Your task to perform on an android device: turn on improve location accuracy Image 0: 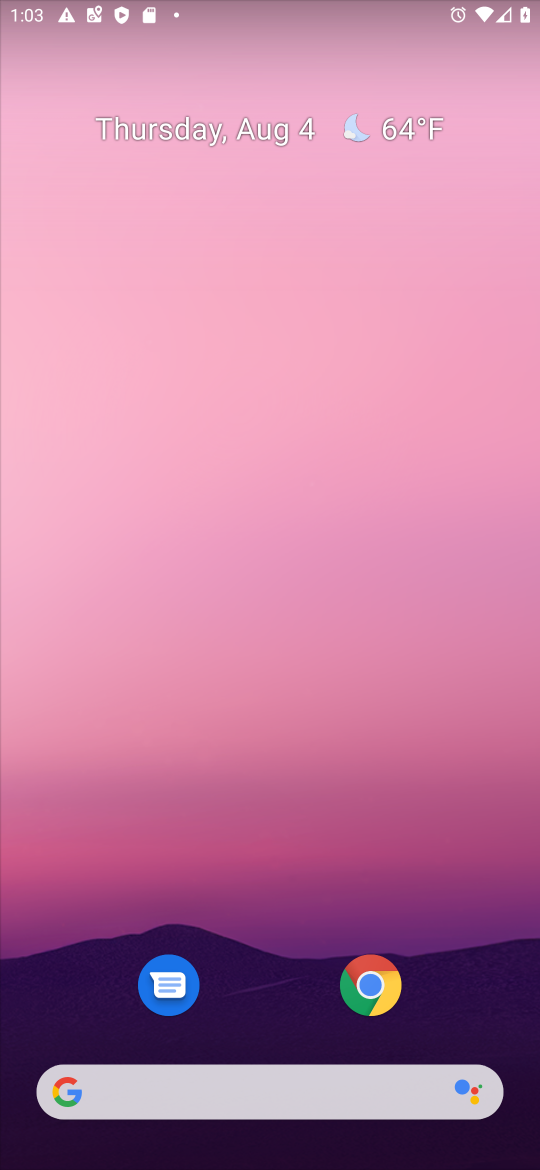
Step 0: drag from (276, 905) to (225, 66)
Your task to perform on an android device: turn on improve location accuracy Image 1: 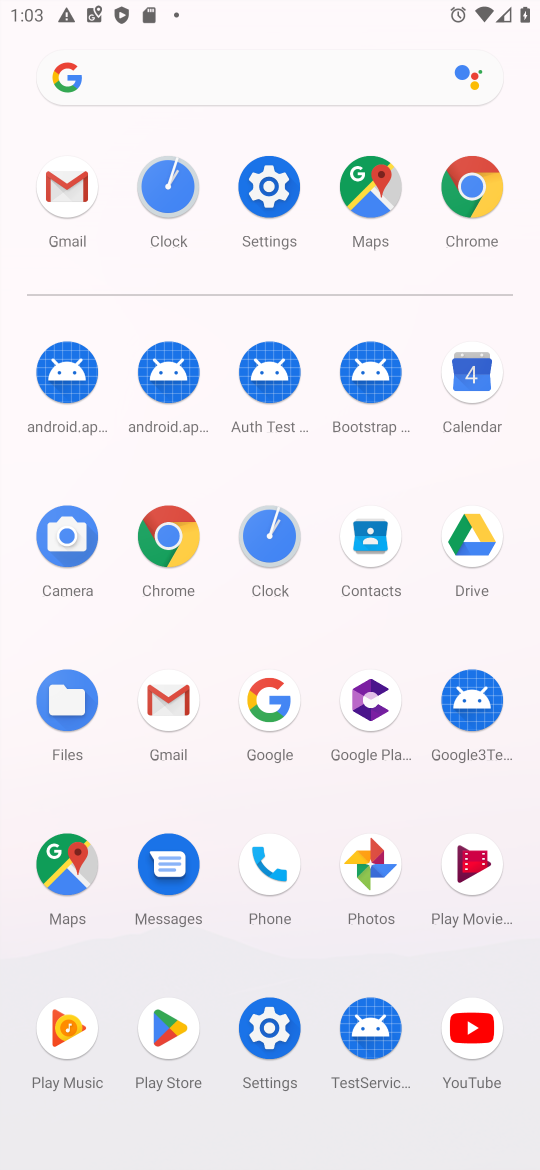
Step 1: click (274, 173)
Your task to perform on an android device: turn on improve location accuracy Image 2: 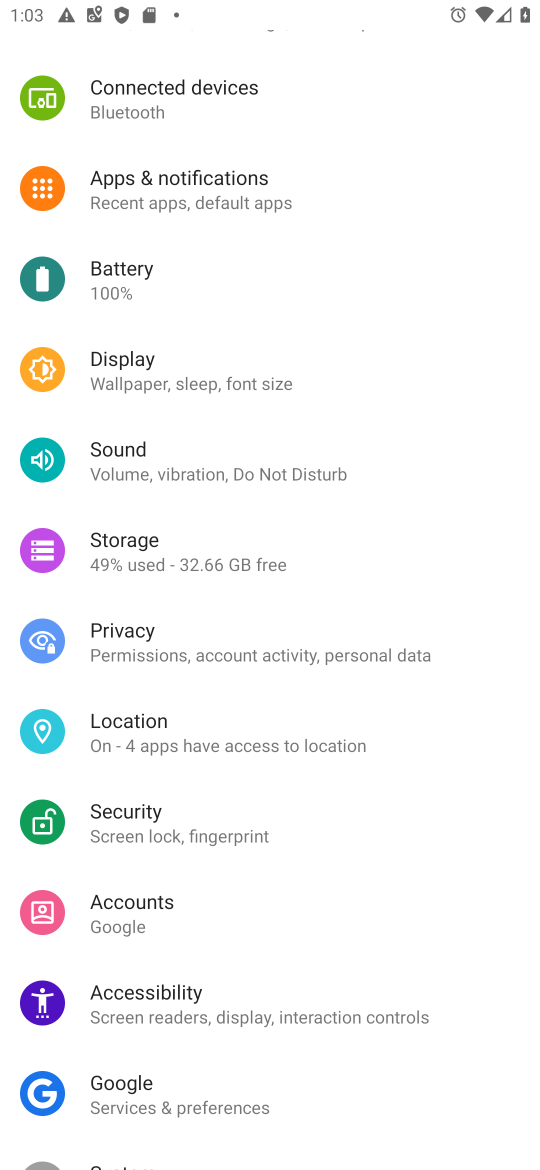
Step 2: click (129, 723)
Your task to perform on an android device: turn on improve location accuracy Image 3: 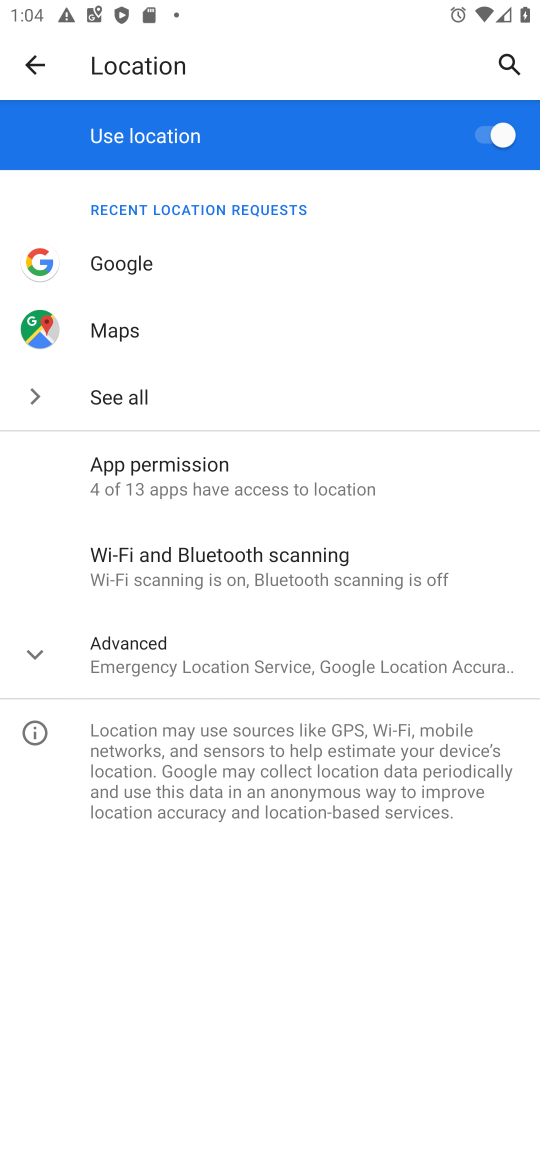
Step 3: click (44, 650)
Your task to perform on an android device: turn on improve location accuracy Image 4: 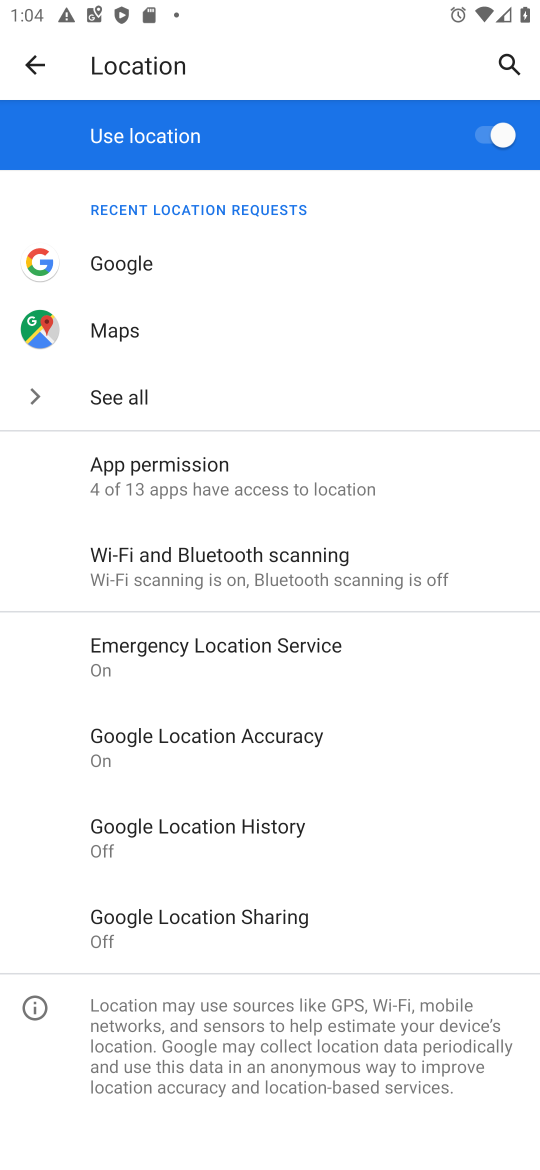
Step 4: click (239, 727)
Your task to perform on an android device: turn on improve location accuracy Image 5: 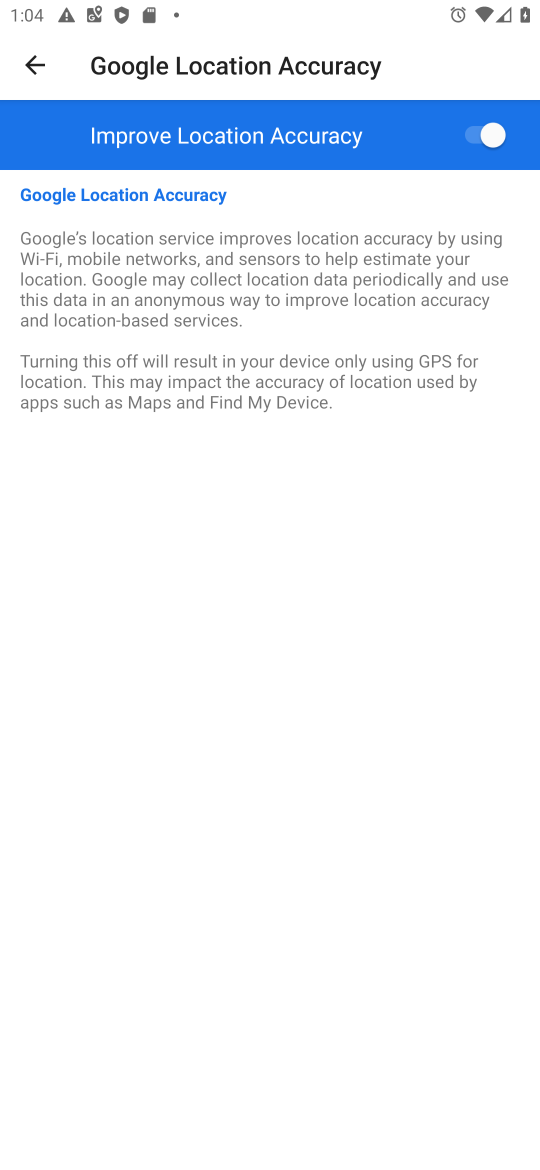
Step 5: task complete